Your task to perform on an android device: allow cookies in the chrome app Image 0: 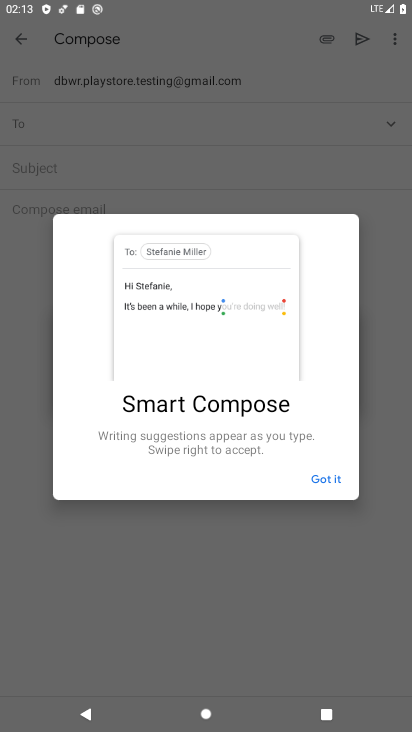
Step 0: press home button
Your task to perform on an android device: allow cookies in the chrome app Image 1: 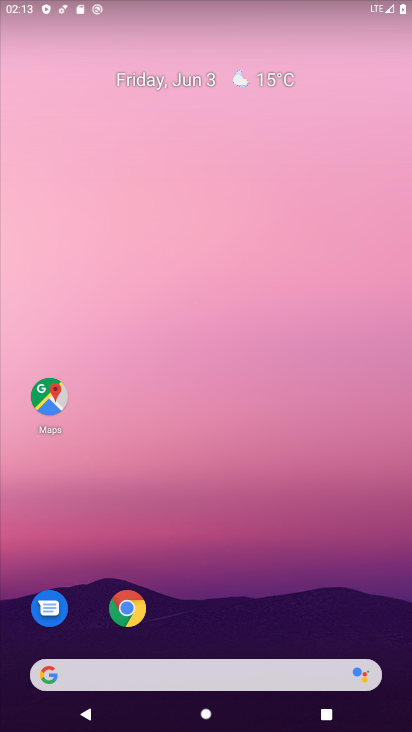
Step 1: drag from (232, 565) to (261, 156)
Your task to perform on an android device: allow cookies in the chrome app Image 2: 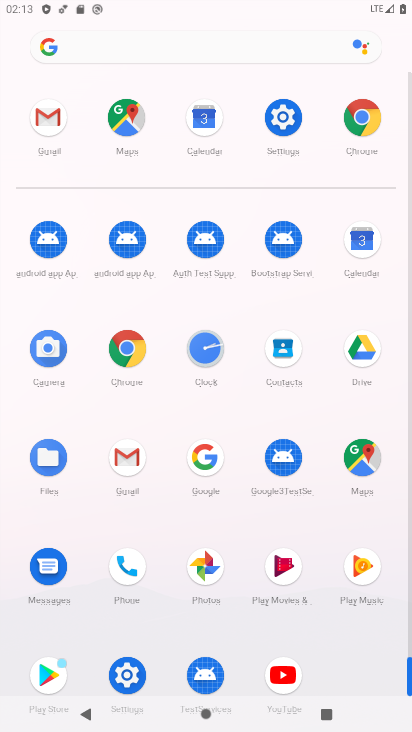
Step 2: click (359, 109)
Your task to perform on an android device: allow cookies in the chrome app Image 3: 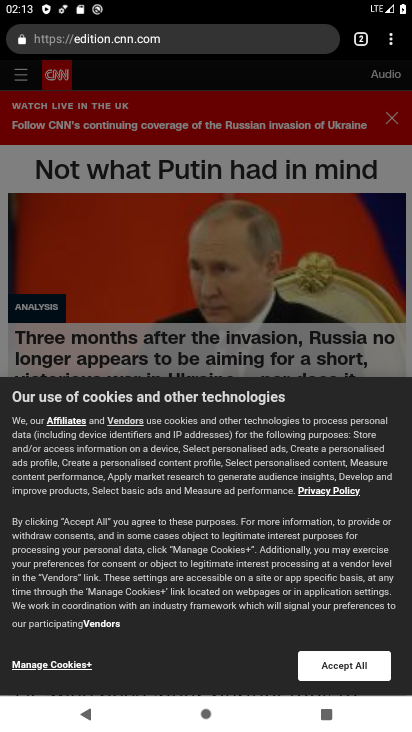
Step 3: drag from (388, 37) to (259, 254)
Your task to perform on an android device: allow cookies in the chrome app Image 4: 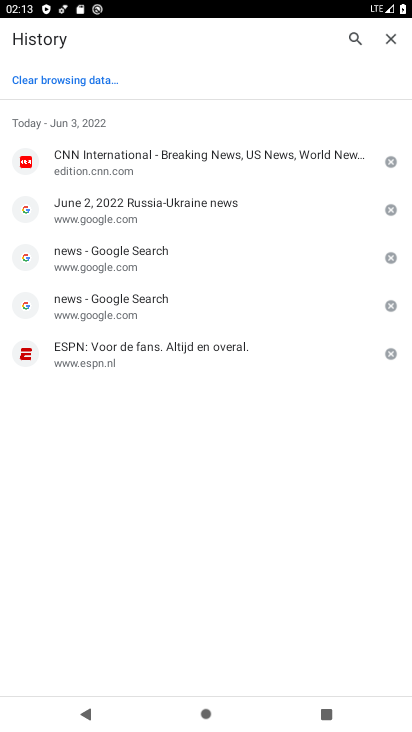
Step 4: click (90, 89)
Your task to perform on an android device: allow cookies in the chrome app Image 5: 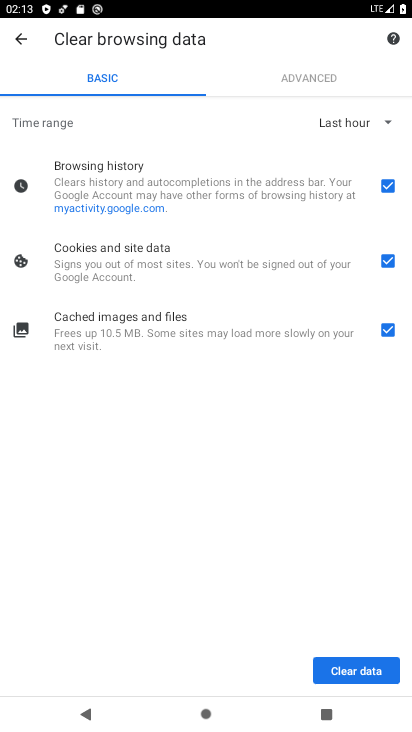
Step 5: click (355, 128)
Your task to perform on an android device: allow cookies in the chrome app Image 6: 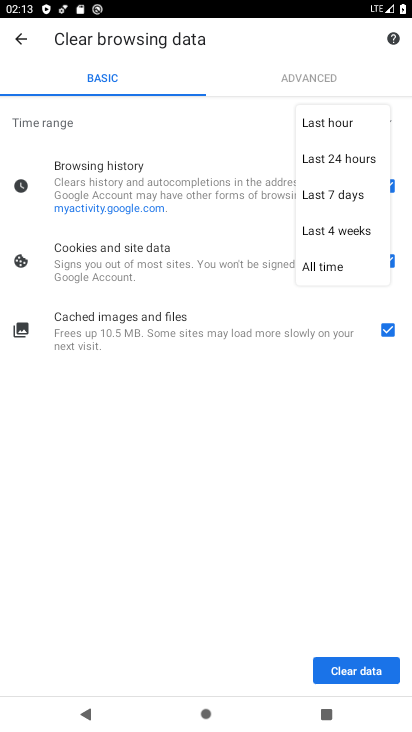
Step 6: click (314, 259)
Your task to perform on an android device: allow cookies in the chrome app Image 7: 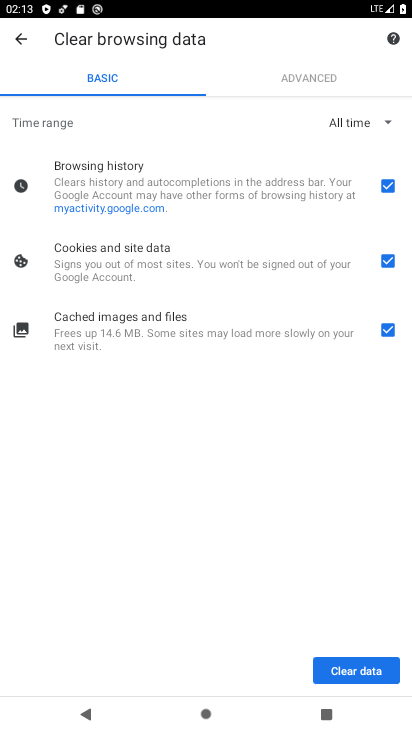
Step 7: click (359, 678)
Your task to perform on an android device: allow cookies in the chrome app Image 8: 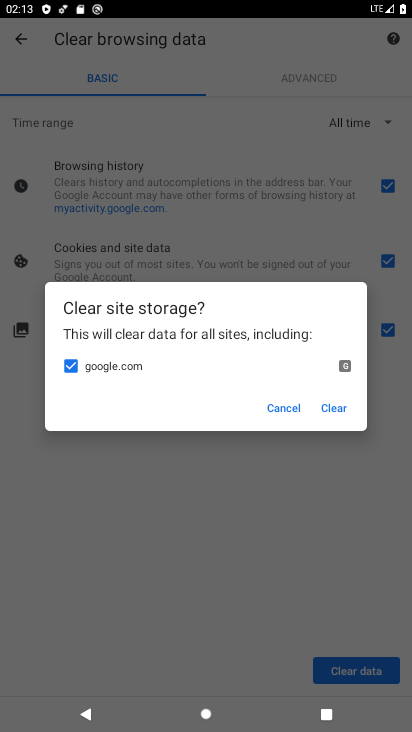
Step 8: click (333, 409)
Your task to perform on an android device: allow cookies in the chrome app Image 9: 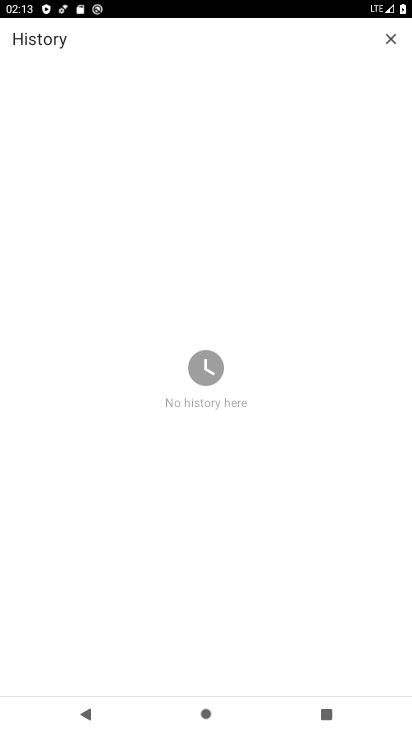
Step 9: task complete